Your task to perform on an android device: turn smart compose on in the gmail app Image 0: 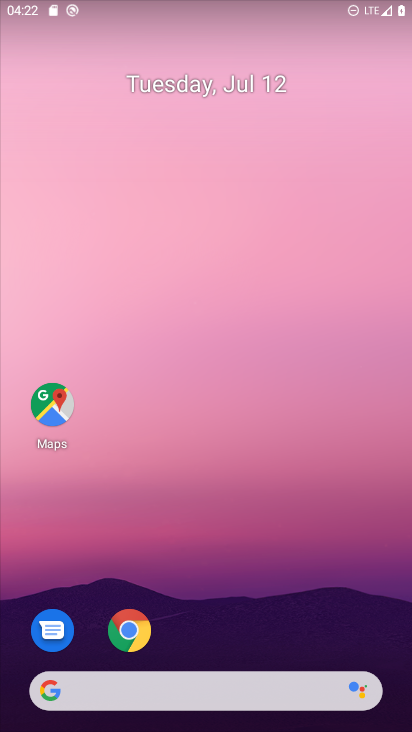
Step 0: drag from (292, 585) to (298, 3)
Your task to perform on an android device: turn smart compose on in the gmail app Image 1: 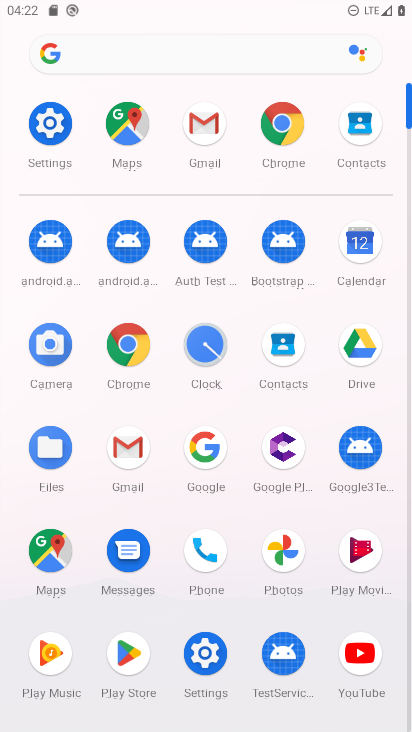
Step 1: click (120, 436)
Your task to perform on an android device: turn smart compose on in the gmail app Image 2: 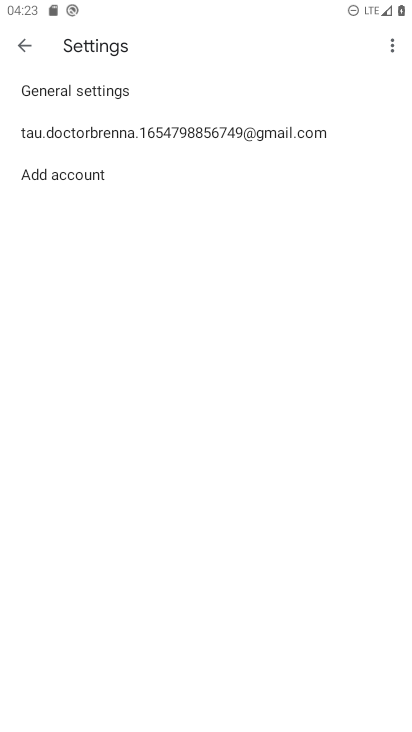
Step 2: press back button
Your task to perform on an android device: turn smart compose on in the gmail app Image 3: 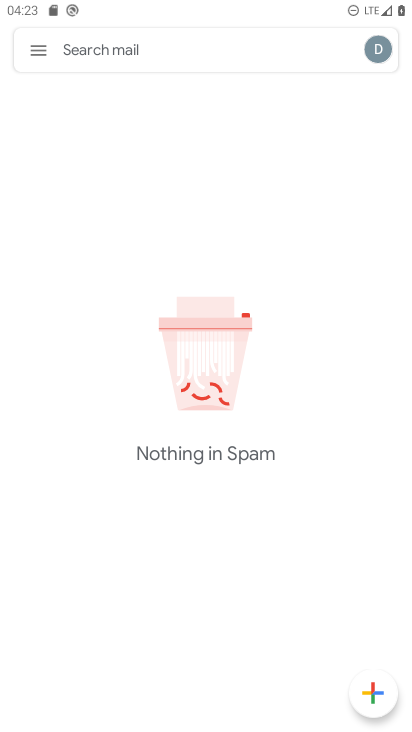
Step 3: click (30, 45)
Your task to perform on an android device: turn smart compose on in the gmail app Image 4: 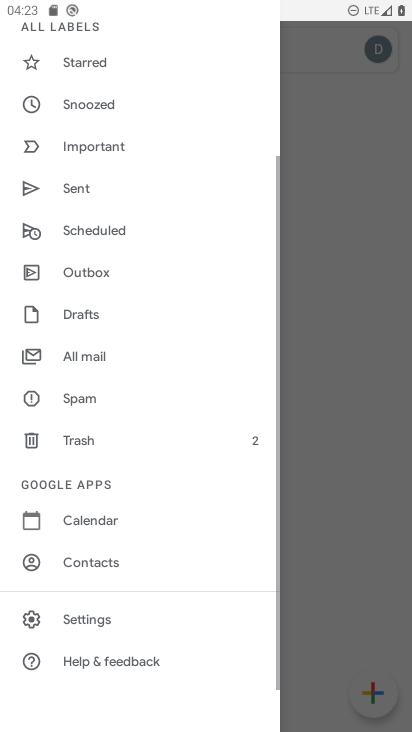
Step 4: click (111, 621)
Your task to perform on an android device: turn smart compose on in the gmail app Image 5: 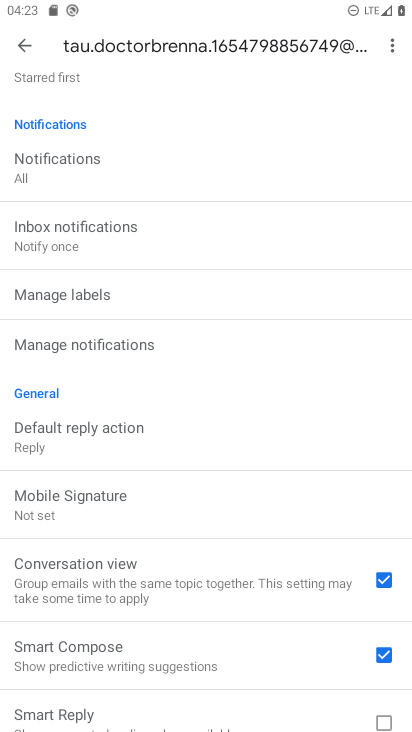
Step 5: task complete